Your task to perform on an android device: change the clock display to analog Image 0: 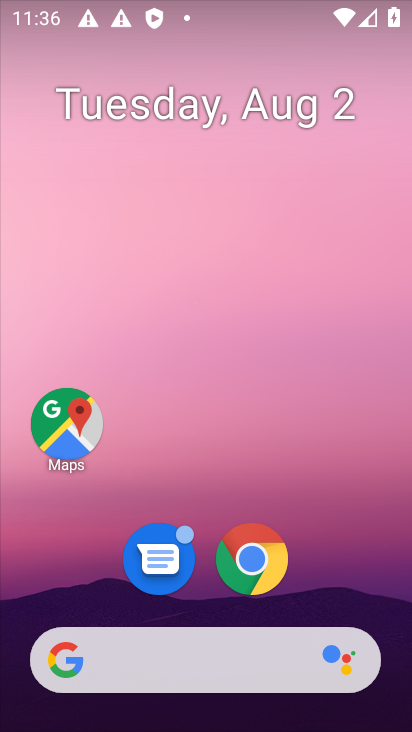
Step 0: drag from (202, 572) to (202, 111)
Your task to perform on an android device: change the clock display to analog Image 1: 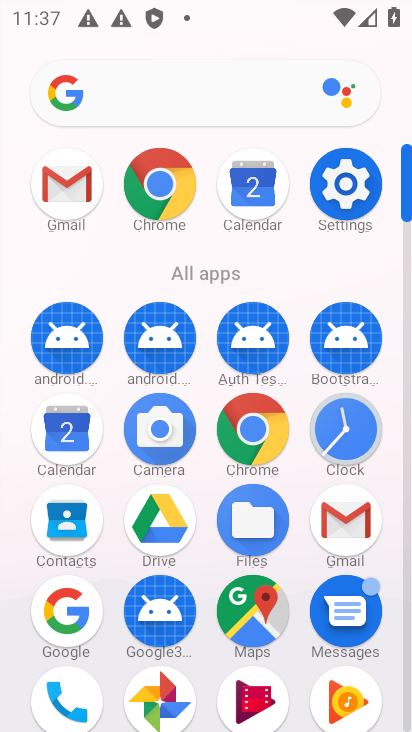
Step 1: click (354, 432)
Your task to perform on an android device: change the clock display to analog Image 2: 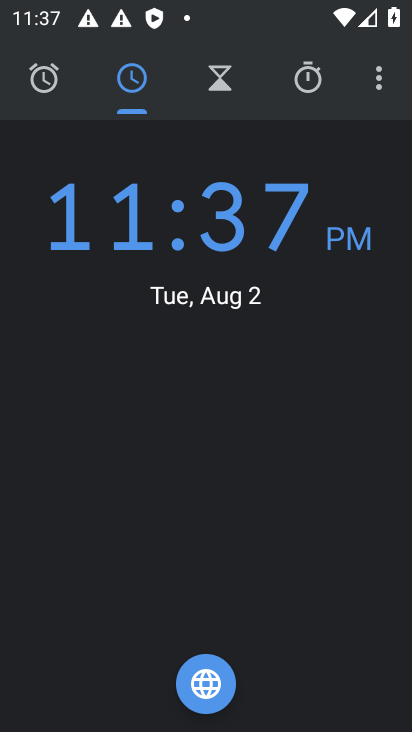
Step 2: click (381, 89)
Your task to perform on an android device: change the clock display to analog Image 3: 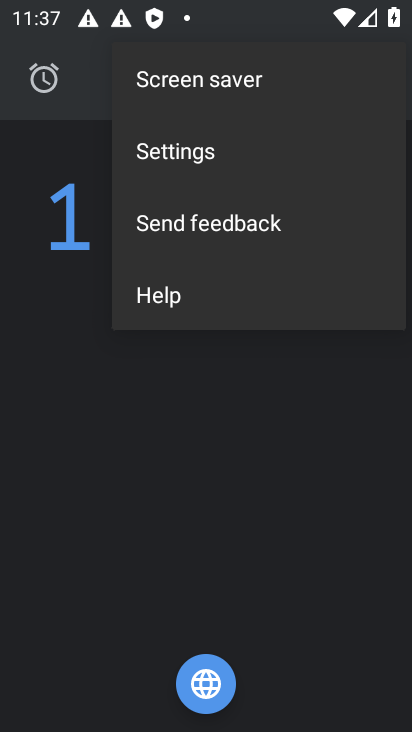
Step 3: click (182, 154)
Your task to perform on an android device: change the clock display to analog Image 4: 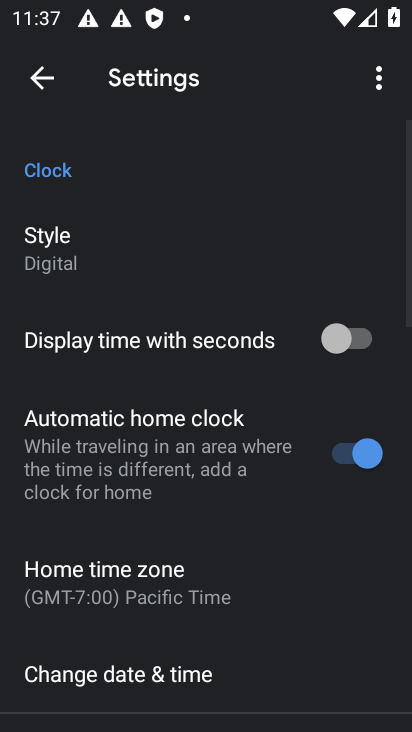
Step 4: click (44, 251)
Your task to perform on an android device: change the clock display to analog Image 5: 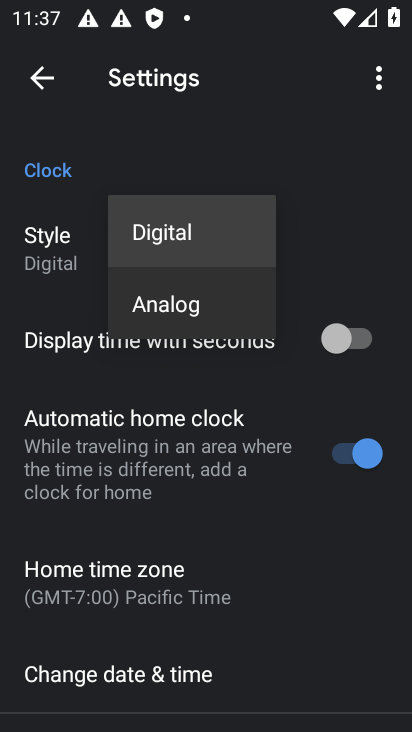
Step 5: click (170, 302)
Your task to perform on an android device: change the clock display to analog Image 6: 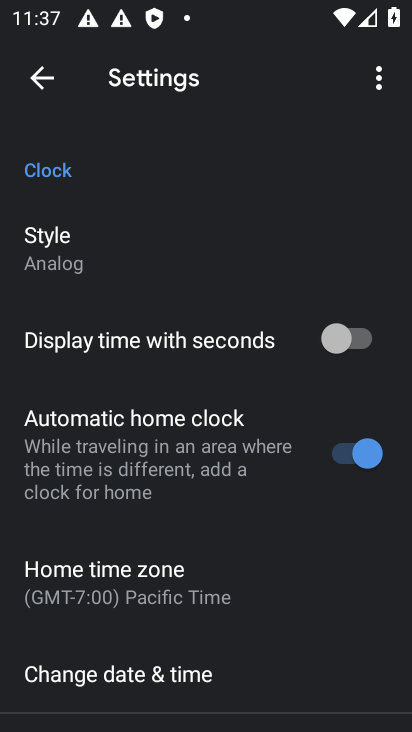
Step 6: task complete